Your task to perform on an android device: Show me the alarms in the clock app Image 0: 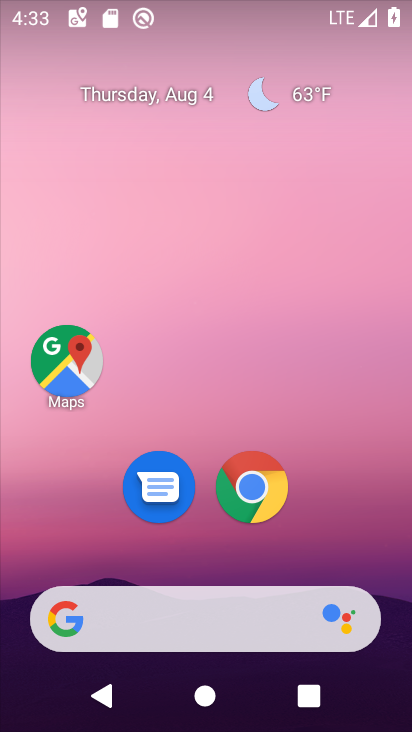
Step 0: drag from (247, 569) to (206, 27)
Your task to perform on an android device: Show me the alarms in the clock app Image 1: 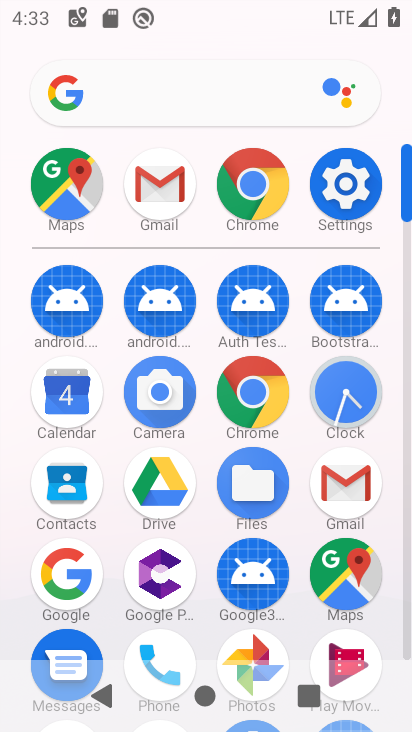
Step 1: click (338, 391)
Your task to perform on an android device: Show me the alarms in the clock app Image 2: 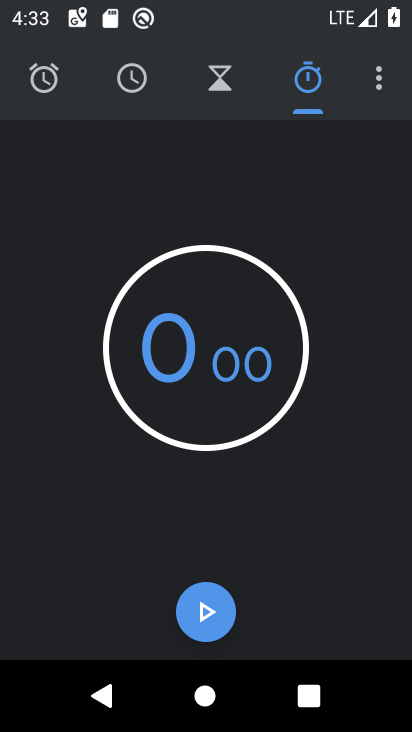
Step 2: click (45, 86)
Your task to perform on an android device: Show me the alarms in the clock app Image 3: 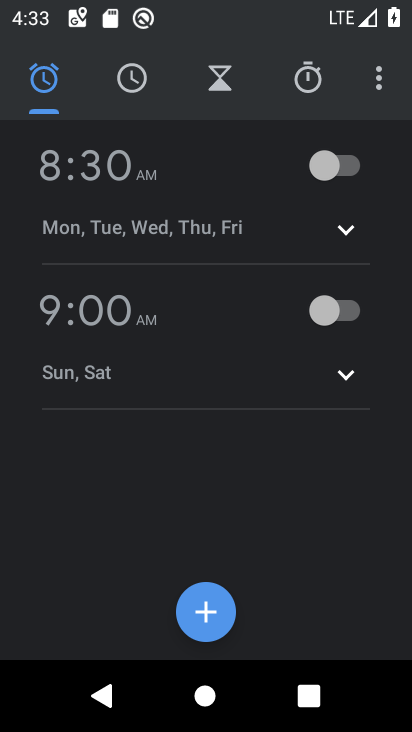
Step 3: task complete